Your task to perform on an android device: check android version Image 0: 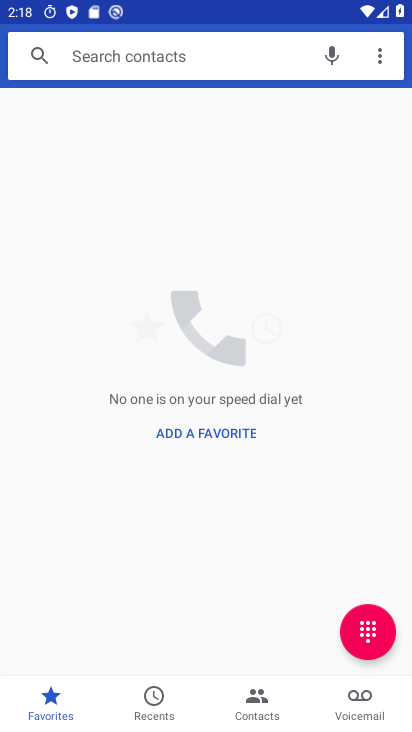
Step 0: press home button
Your task to perform on an android device: check android version Image 1: 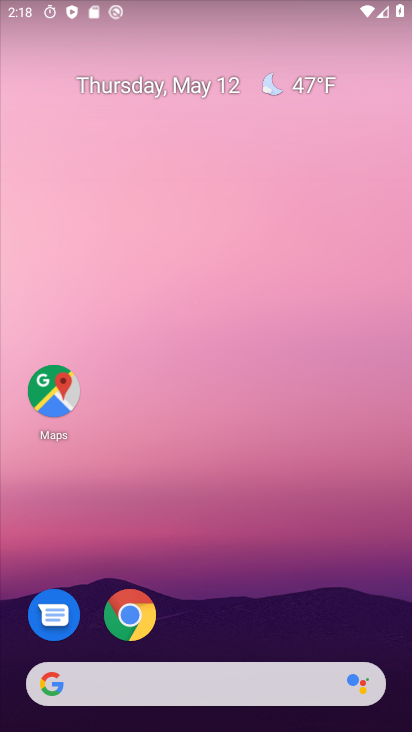
Step 1: drag from (290, 611) to (274, 67)
Your task to perform on an android device: check android version Image 2: 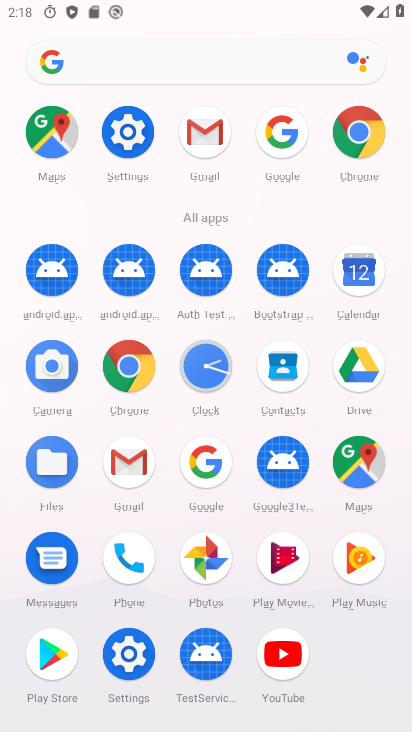
Step 2: click (127, 134)
Your task to perform on an android device: check android version Image 3: 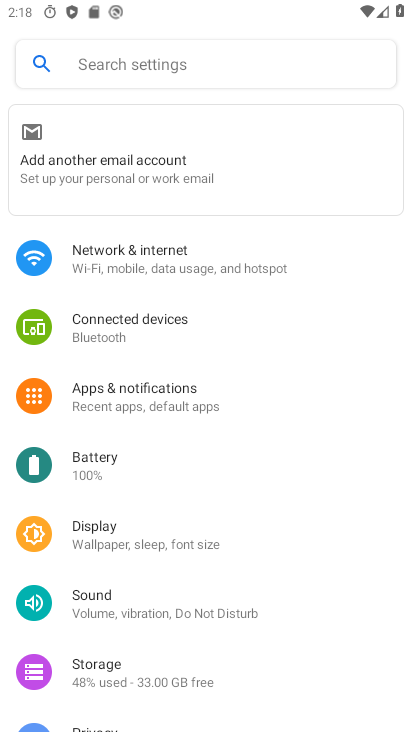
Step 3: drag from (215, 610) to (201, 116)
Your task to perform on an android device: check android version Image 4: 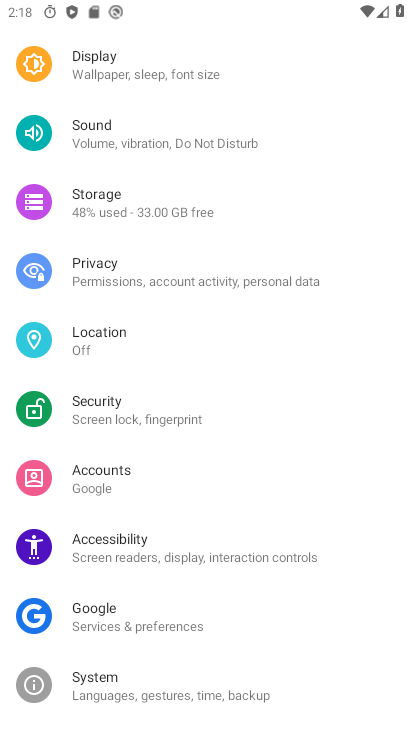
Step 4: drag from (200, 664) to (202, 273)
Your task to perform on an android device: check android version Image 5: 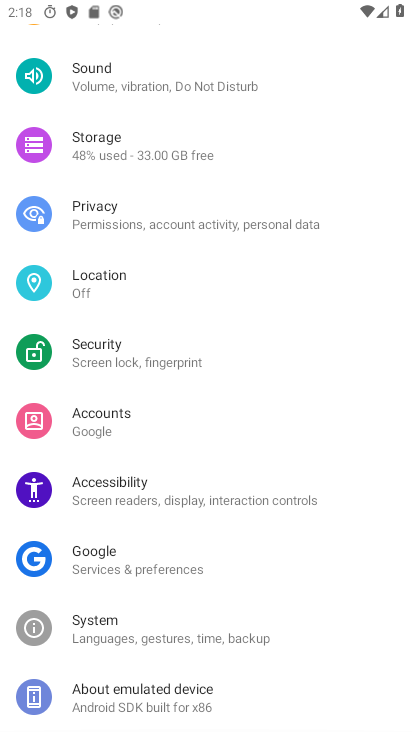
Step 5: click (129, 702)
Your task to perform on an android device: check android version Image 6: 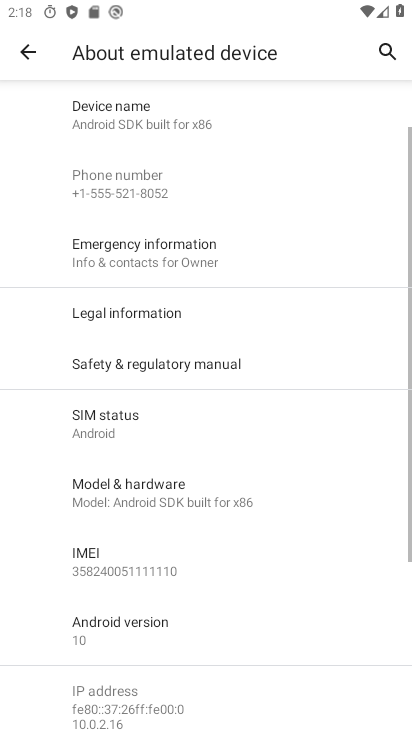
Step 6: click (139, 634)
Your task to perform on an android device: check android version Image 7: 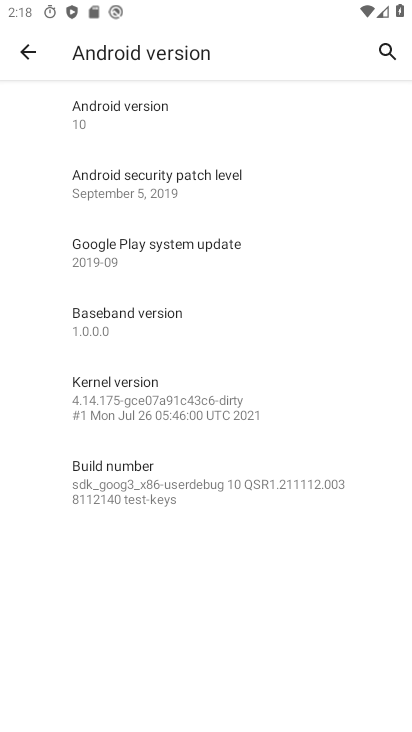
Step 7: task complete